Your task to perform on an android device: turn off location Image 0: 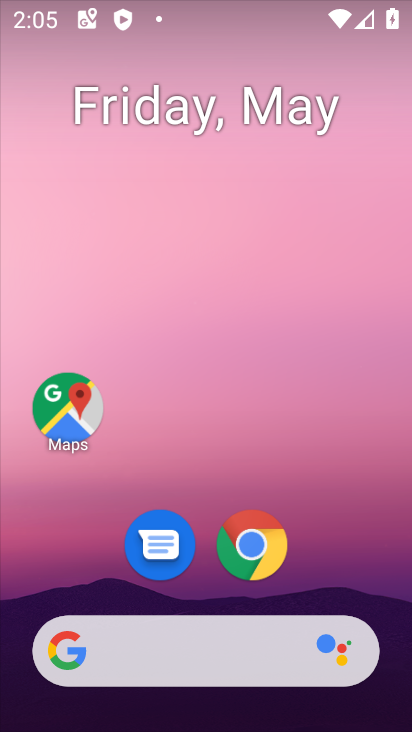
Step 0: drag from (83, 603) to (192, 94)
Your task to perform on an android device: turn off location Image 1: 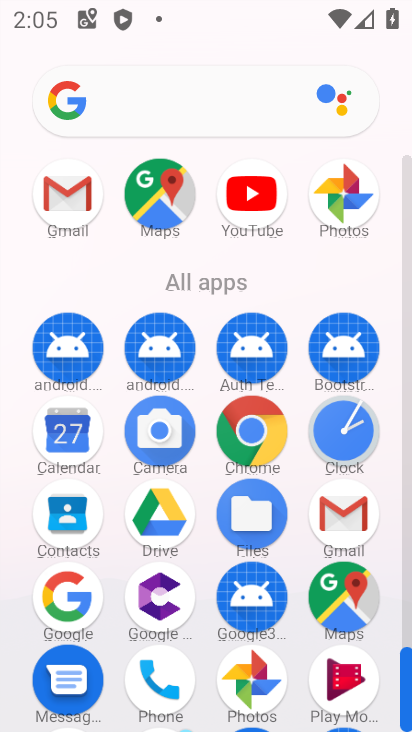
Step 1: drag from (193, 589) to (254, 283)
Your task to perform on an android device: turn off location Image 2: 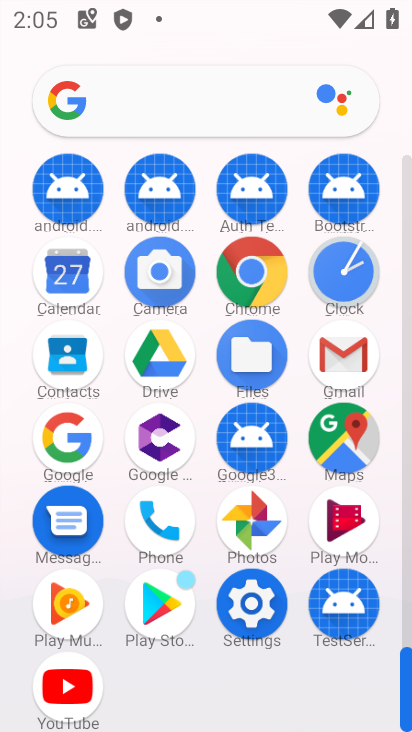
Step 2: click (249, 612)
Your task to perform on an android device: turn off location Image 3: 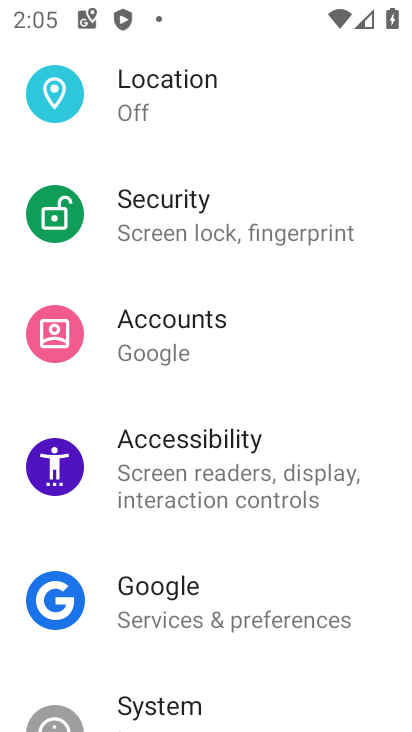
Step 3: drag from (270, 225) to (265, 564)
Your task to perform on an android device: turn off location Image 4: 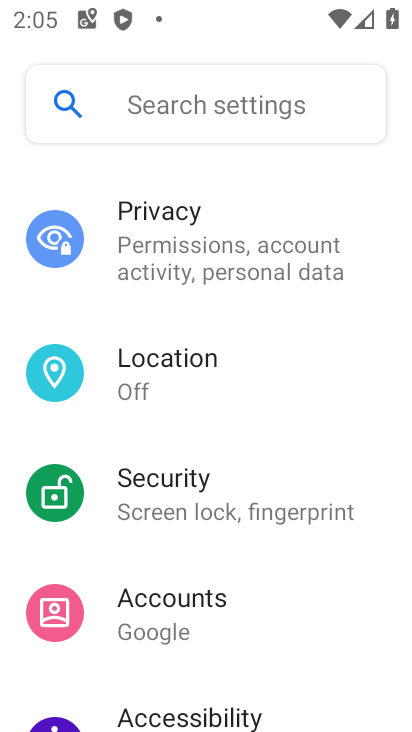
Step 4: click (161, 371)
Your task to perform on an android device: turn off location Image 5: 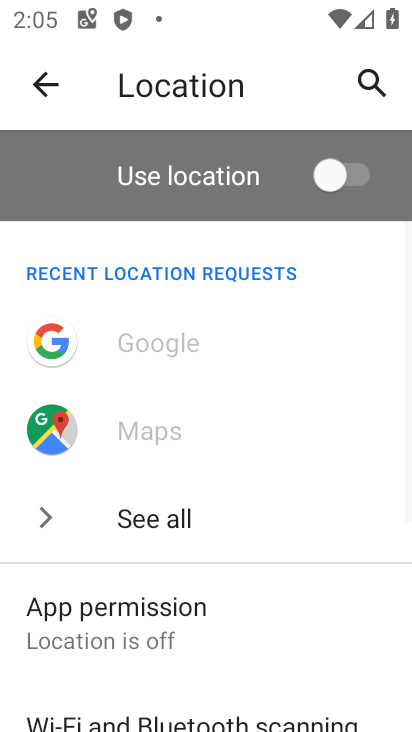
Step 5: task complete